Your task to perform on an android device: open chrome and create a bookmark for the current page Image 0: 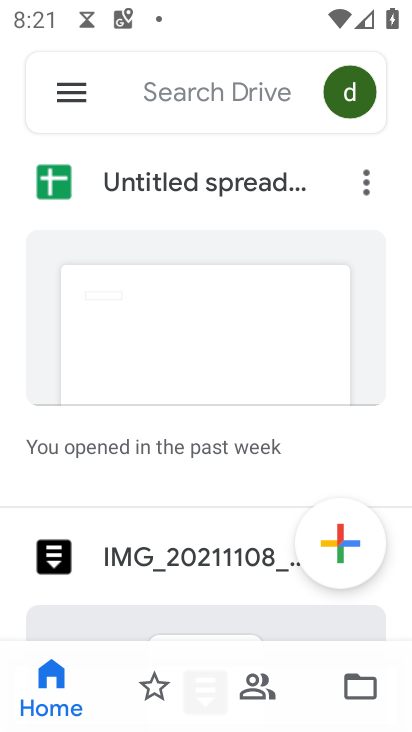
Step 0: press home button
Your task to perform on an android device: open chrome and create a bookmark for the current page Image 1: 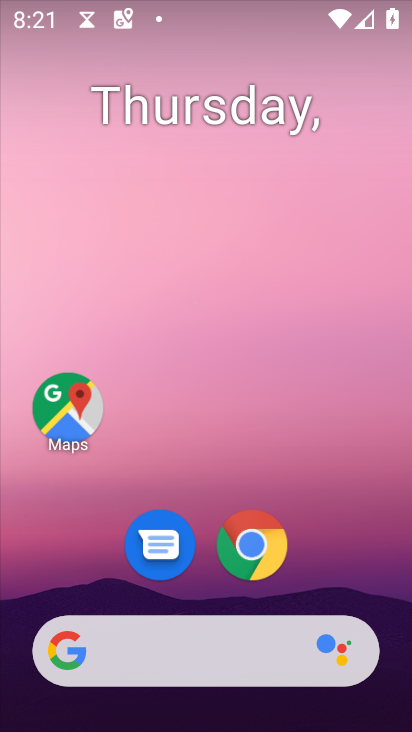
Step 1: click (249, 547)
Your task to perform on an android device: open chrome and create a bookmark for the current page Image 2: 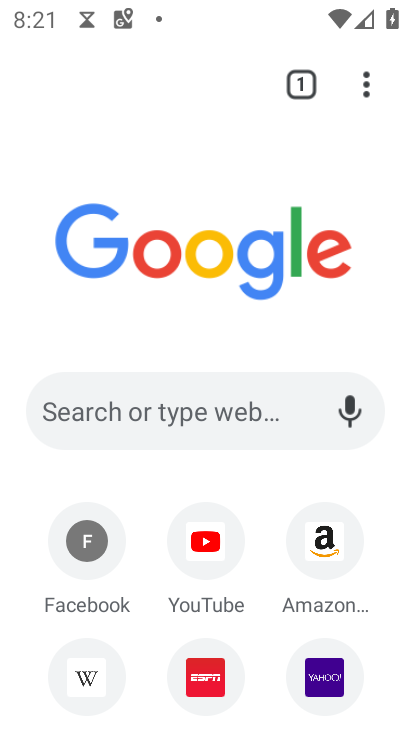
Step 2: click (365, 85)
Your task to perform on an android device: open chrome and create a bookmark for the current page Image 3: 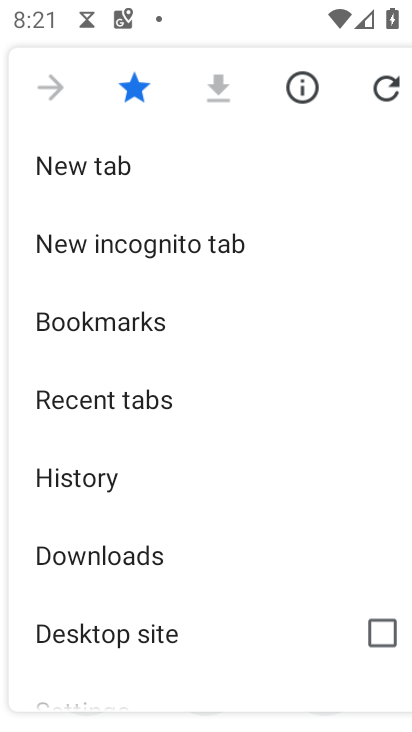
Step 3: task complete